Your task to perform on an android device: Open the phone app and click the voicemail tab. Image 0: 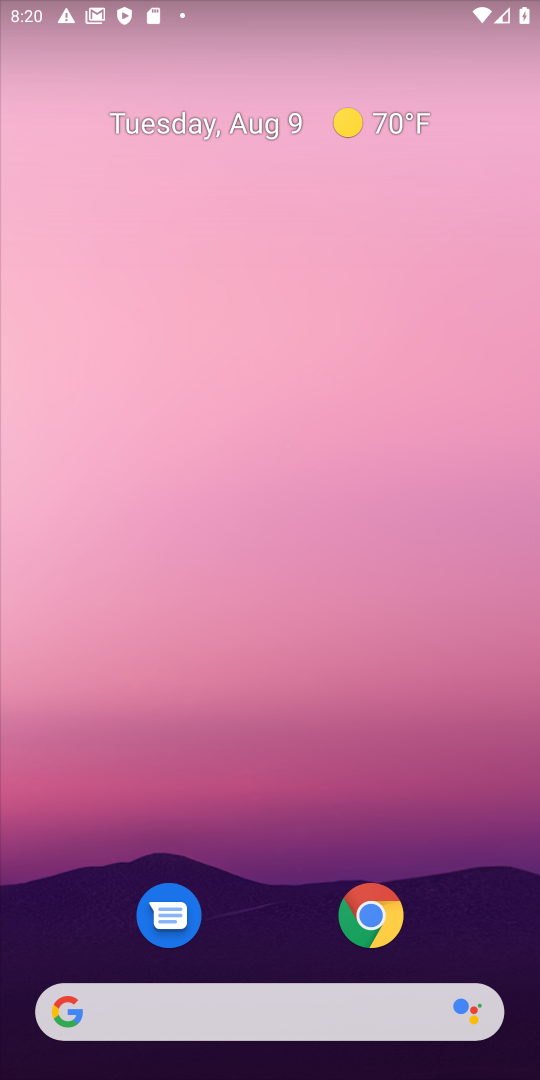
Step 0: drag from (260, 930) to (313, 169)
Your task to perform on an android device: Open the phone app and click the voicemail tab. Image 1: 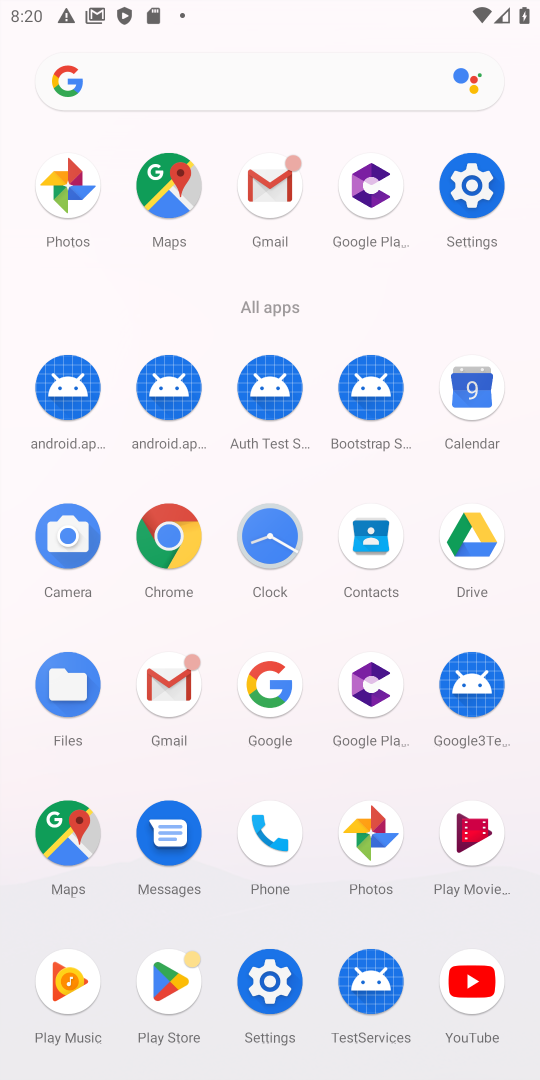
Step 1: click (177, 203)
Your task to perform on an android device: Open the phone app and click the voicemail tab. Image 2: 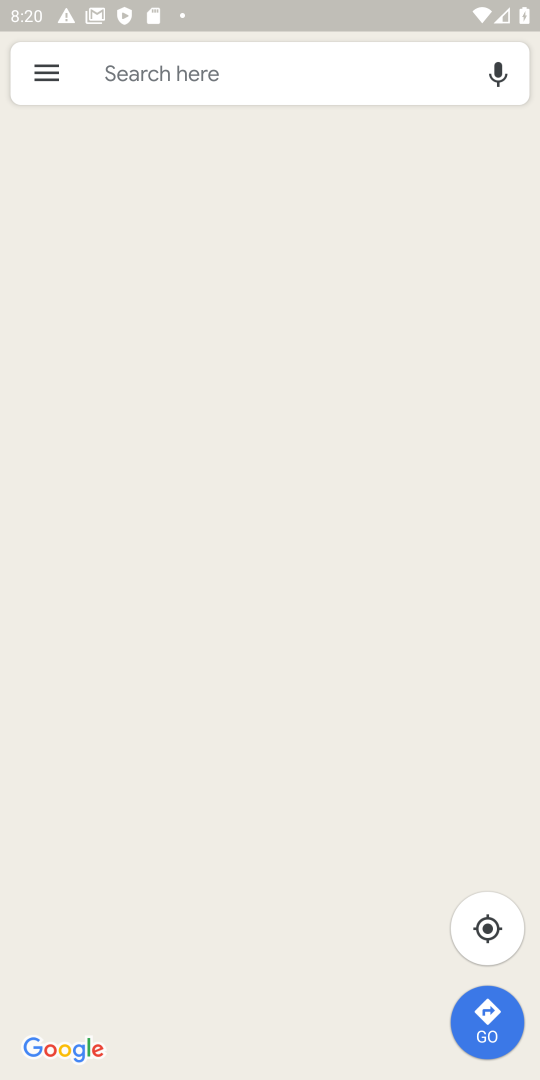
Step 2: press home button
Your task to perform on an android device: Open the phone app and click the voicemail tab. Image 3: 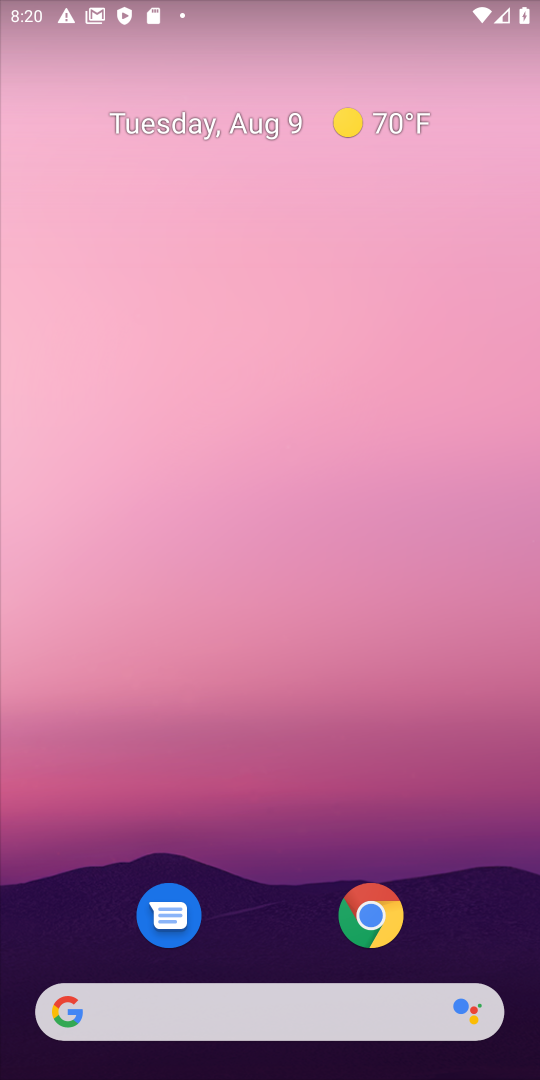
Step 3: drag from (253, 925) to (290, 7)
Your task to perform on an android device: Open the phone app and click the voicemail tab. Image 4: 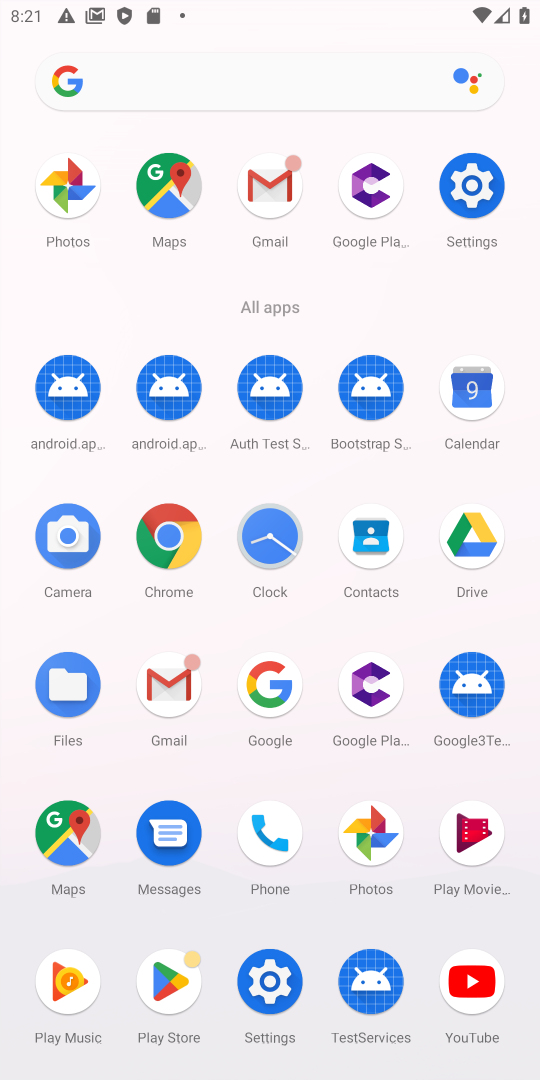
Step 4: click (265, 837)
Your task to perform on an android device: Open the phone app and click the voicemail tab. Image 5: 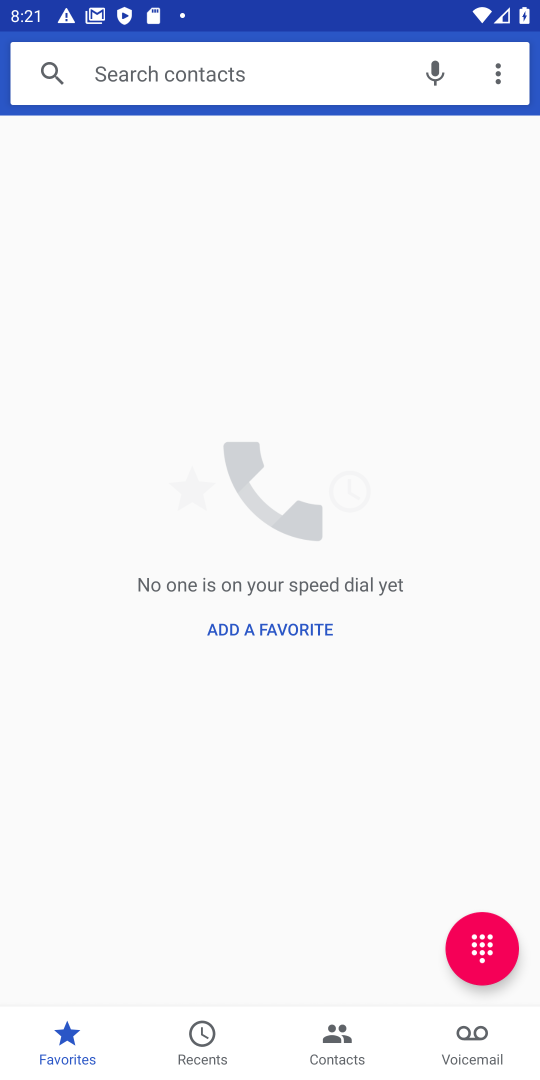
Step 5: click (468, 1042)
Your task to perform on an android device: Open the phone app and click the voicemail tab. Image 6: 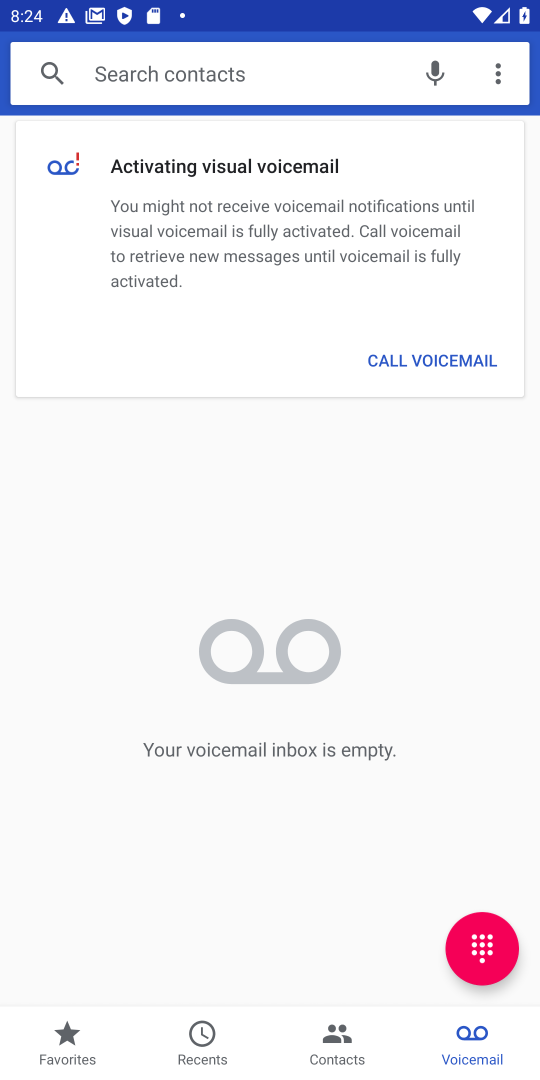
Step 6: task complete